Your task to perform on an android device: toggle location history Image 0: 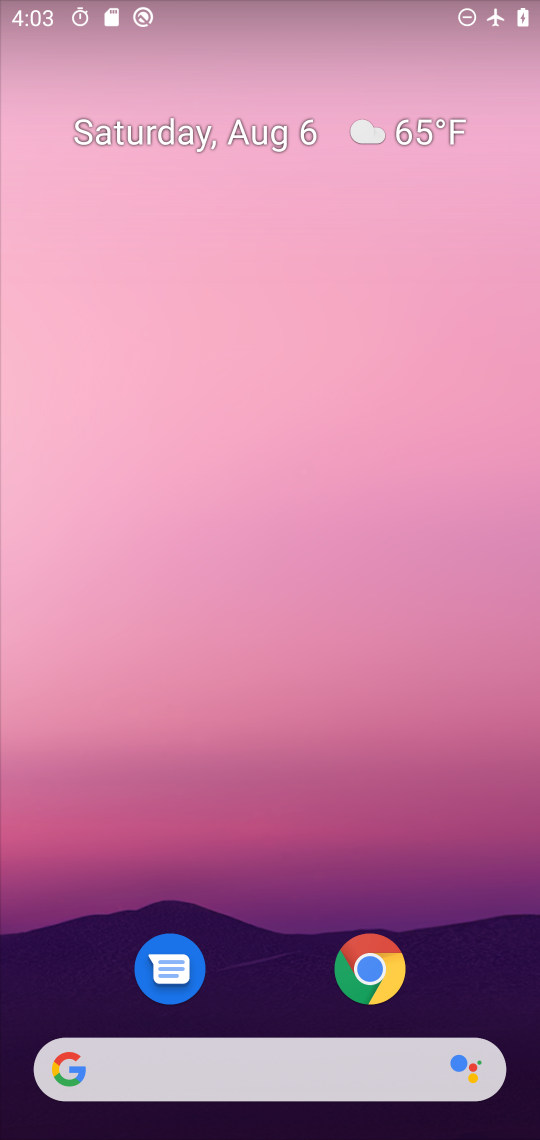
Step 0: press home button
Your task to perform on an android device: toggle location history Image 1: 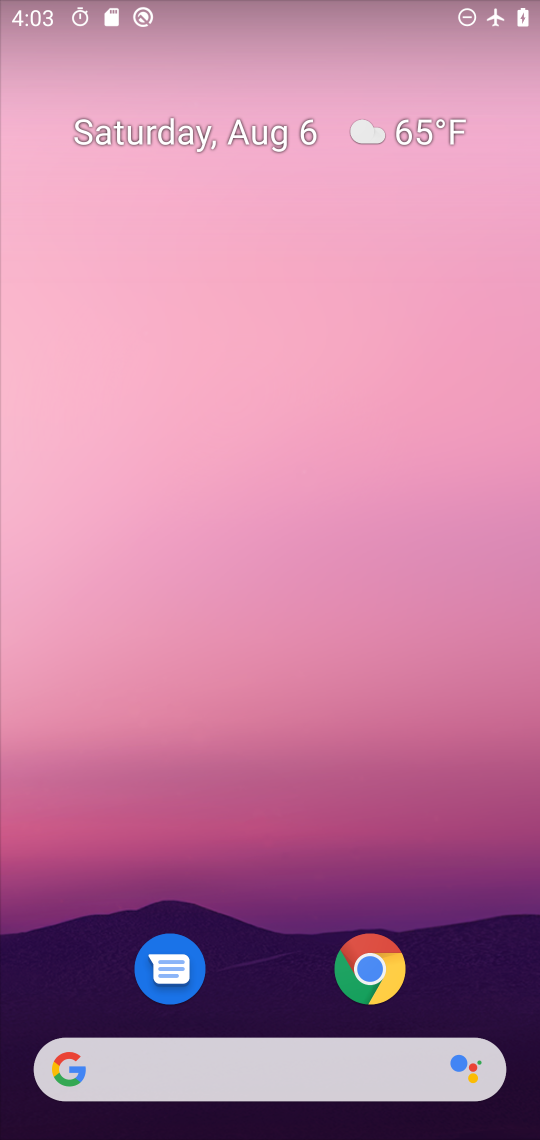
Step 1: drag from (272, 965) to (381, 220)
Your task to perform on an android device: toggle location history Image 2: 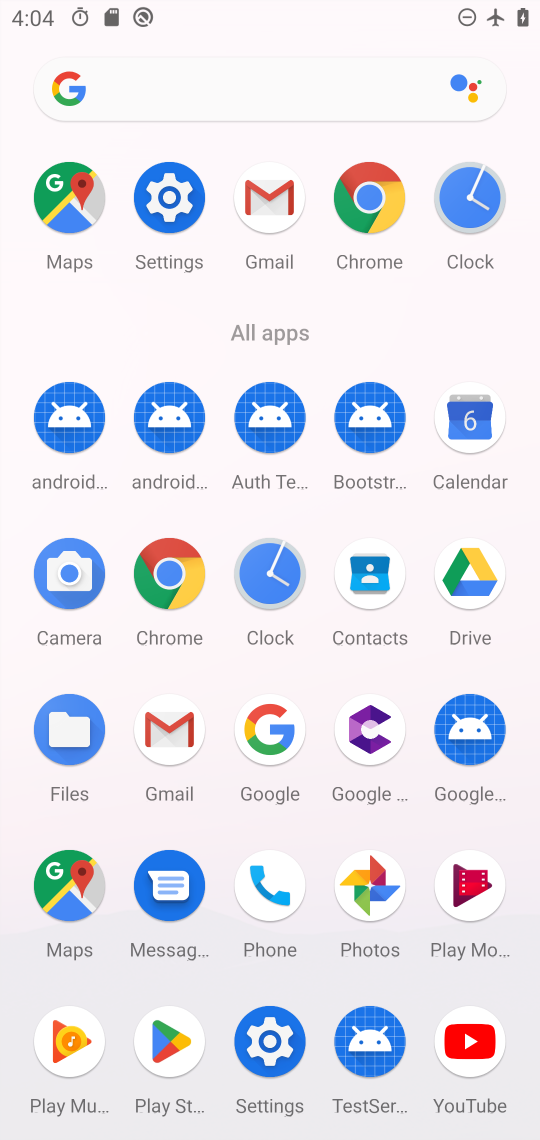
Step 2: click (180, 207)
Your task to perform on an android device: toggle location history Image 3: 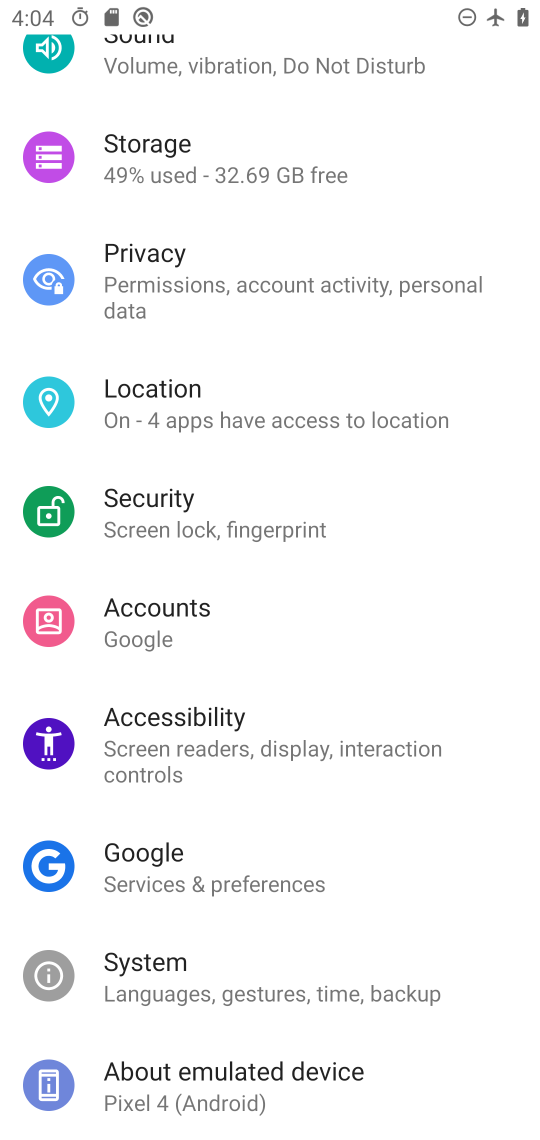
Step 3: drag from (287, 798) to (315, 398)
Your task to perform on an android device: toggle location history Image 4: 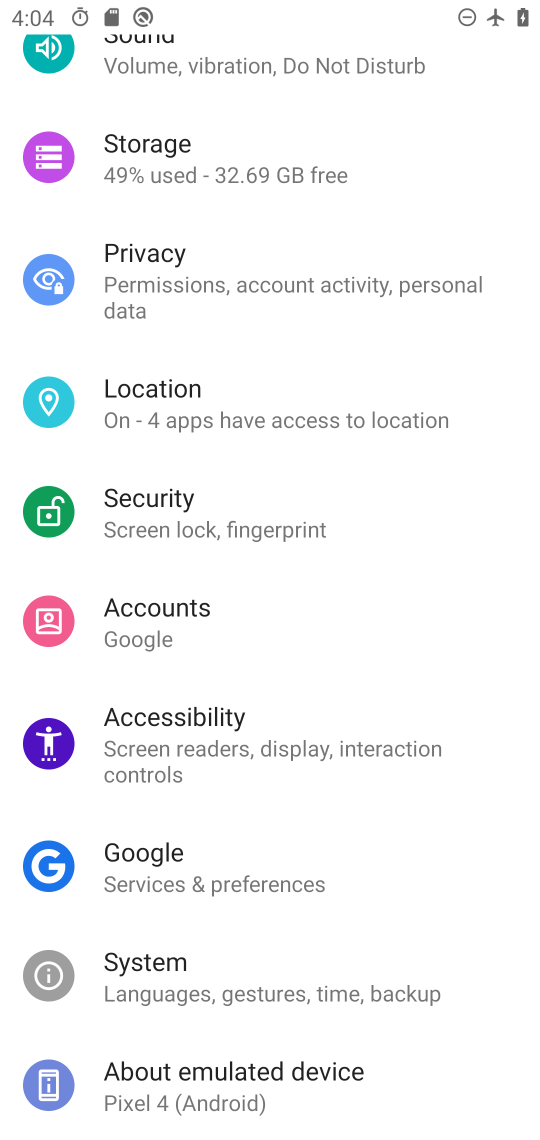
Step 4: click (305, 393)
Your task to perform on an android device: toggle location history Image 5: 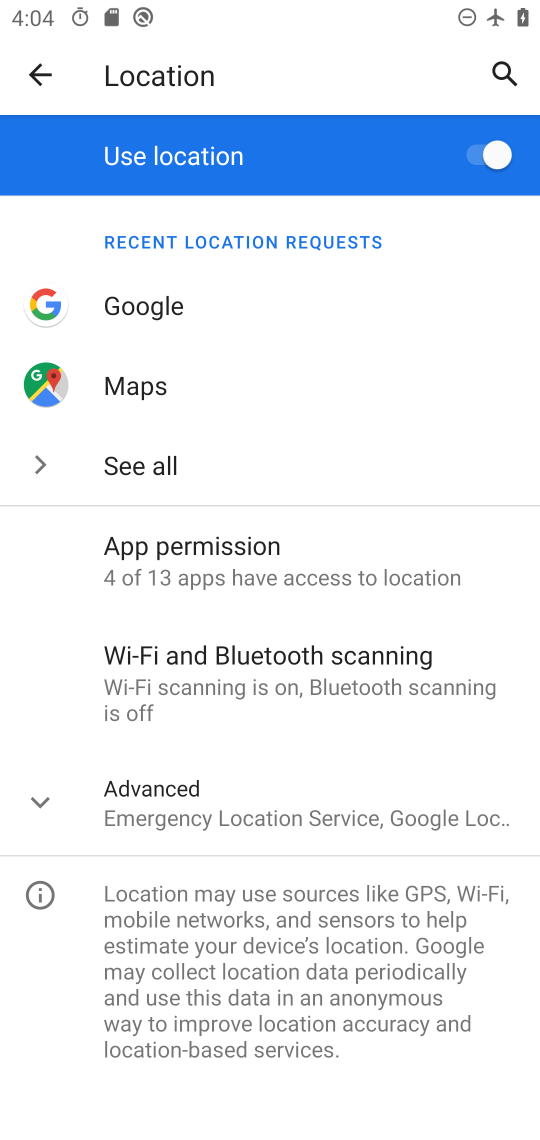
Step 5: click (51, 807)
Your task to perform on an android device: toggle location history Image 6: 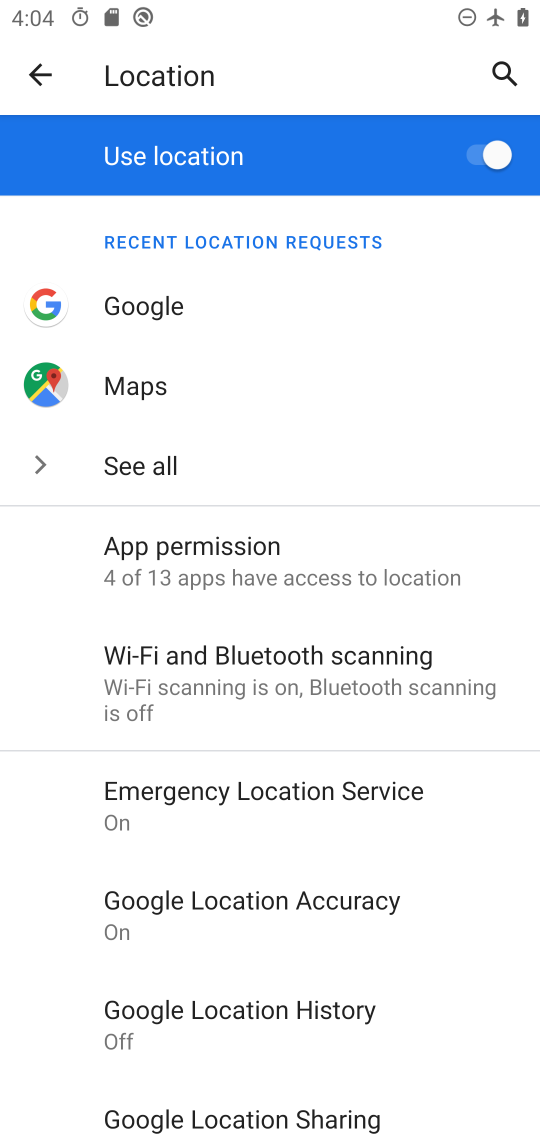
Step 6: drag from (26, 1004) to (199, 312)
Your task to perform on an android device: toggle location history Image 7: 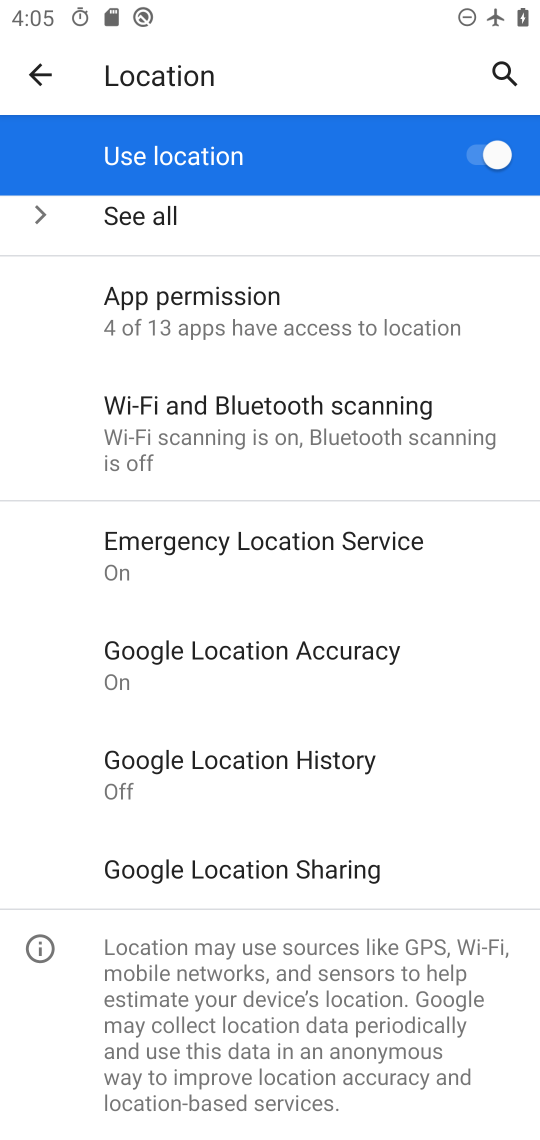
Step 7: click (296, 770)
Your task to perform on an android device: toggle location history Image 8: 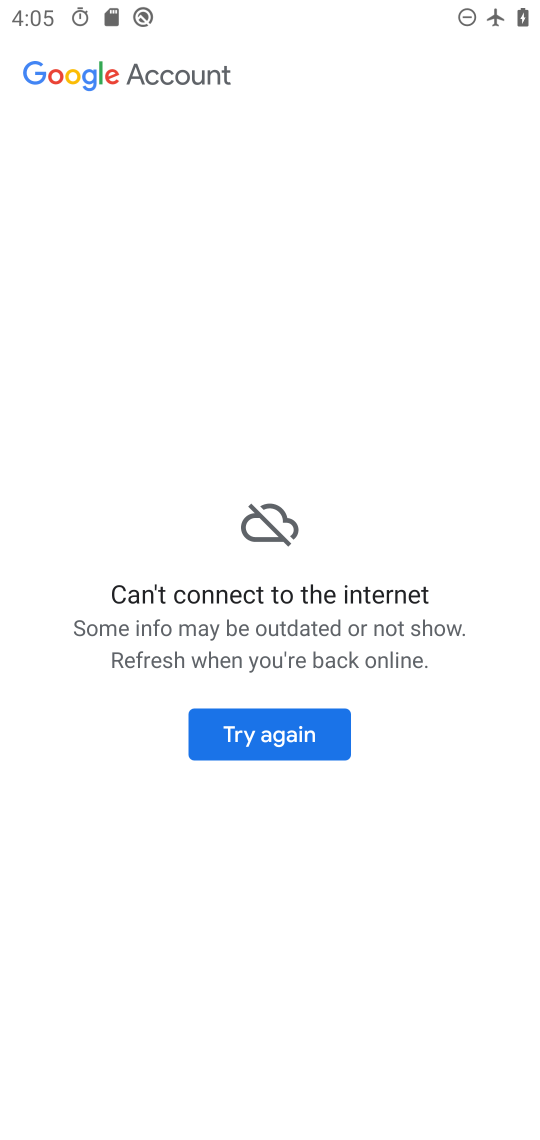
Step 8: drag from (325, 5) to (283, 470)
Your task to perform on an android device: toggle location history Image 9: 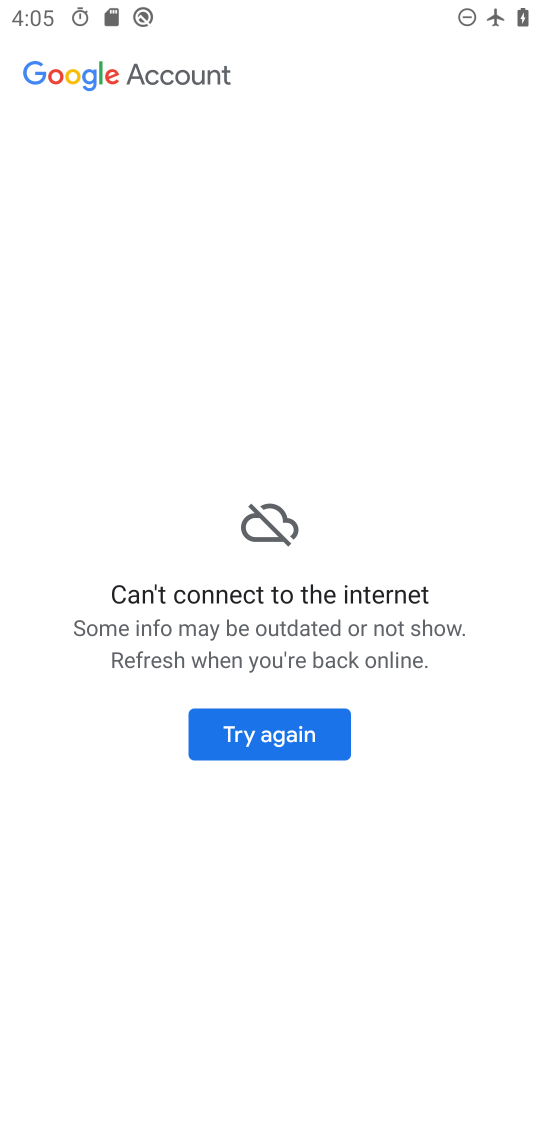
Step 9: drag from (333, 8) to (383, 734)
Your task to perform on an android device: toggle location history Image 10: 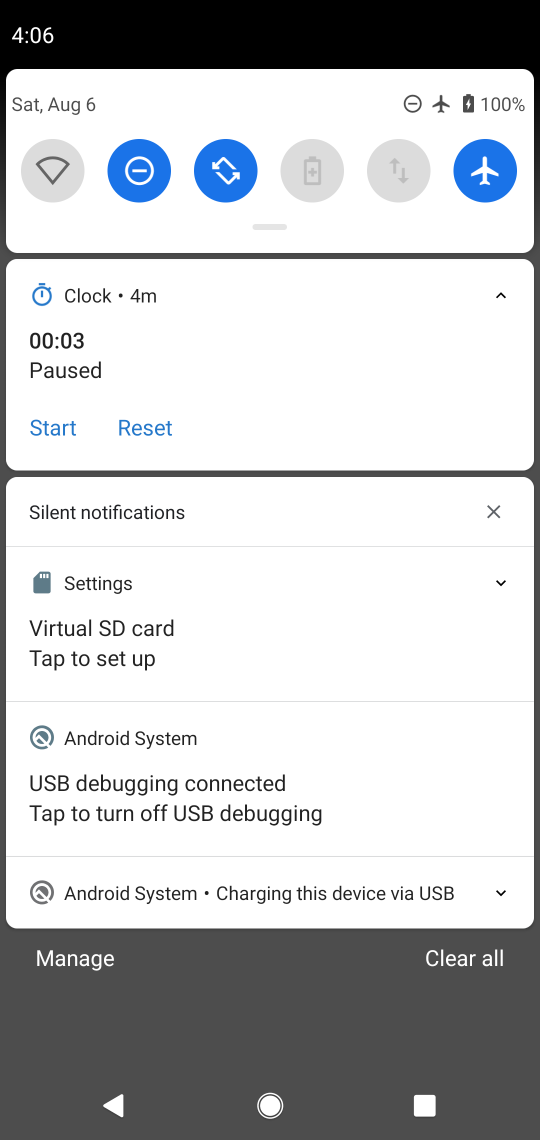
Step 10: drag from (334, 1005) to (420, 670)
Your task to perform on an android device: toggle location history Image 11: 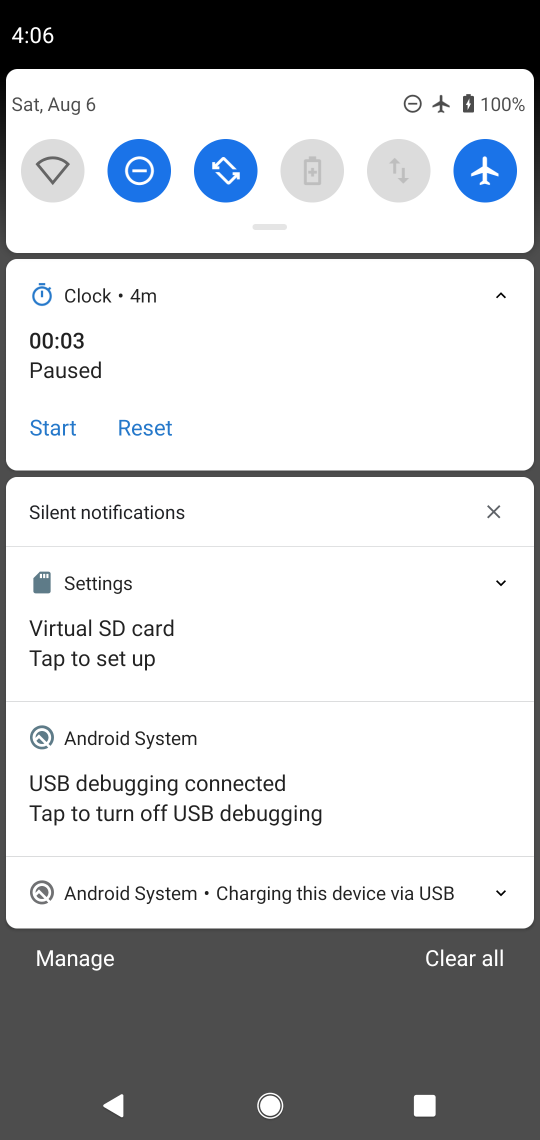
Step 11: click (375, 1001)
Your task to perform on an android device: toggle location history Image 12: 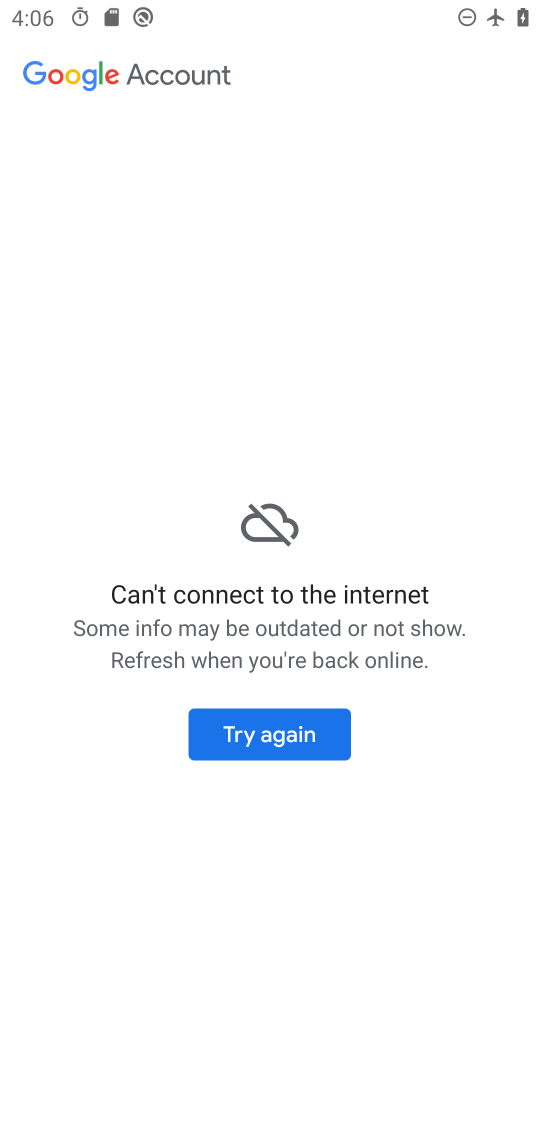
Step 12: drag from (267, 8) to (266, 501)
Your task to perform on an android device: toggle location history Image 13: 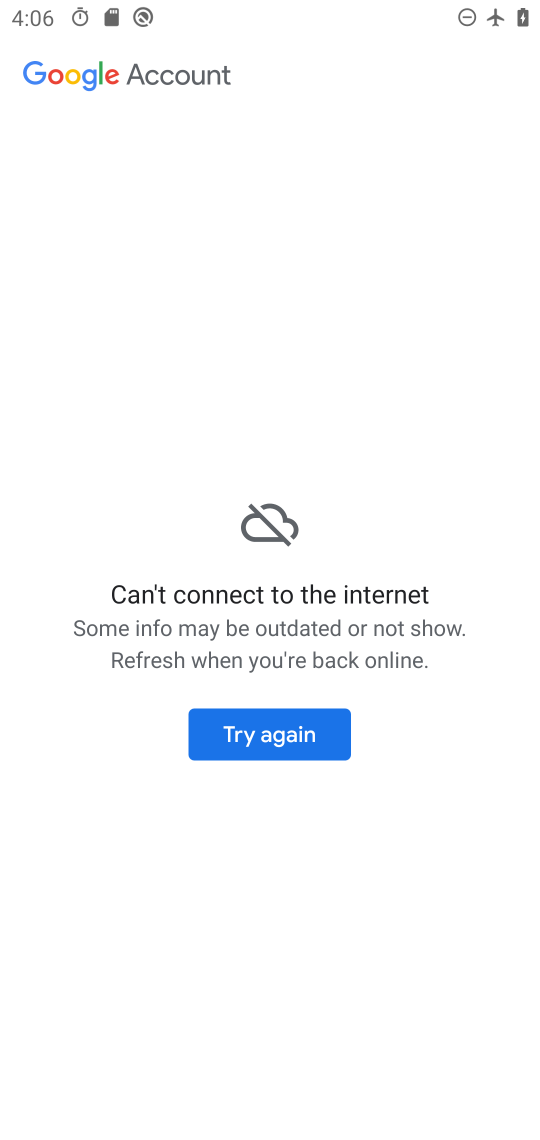
Step 13: drag from (292, 1) to (218, 827)
Your task to perform on an android device: toggle location history Image 14: 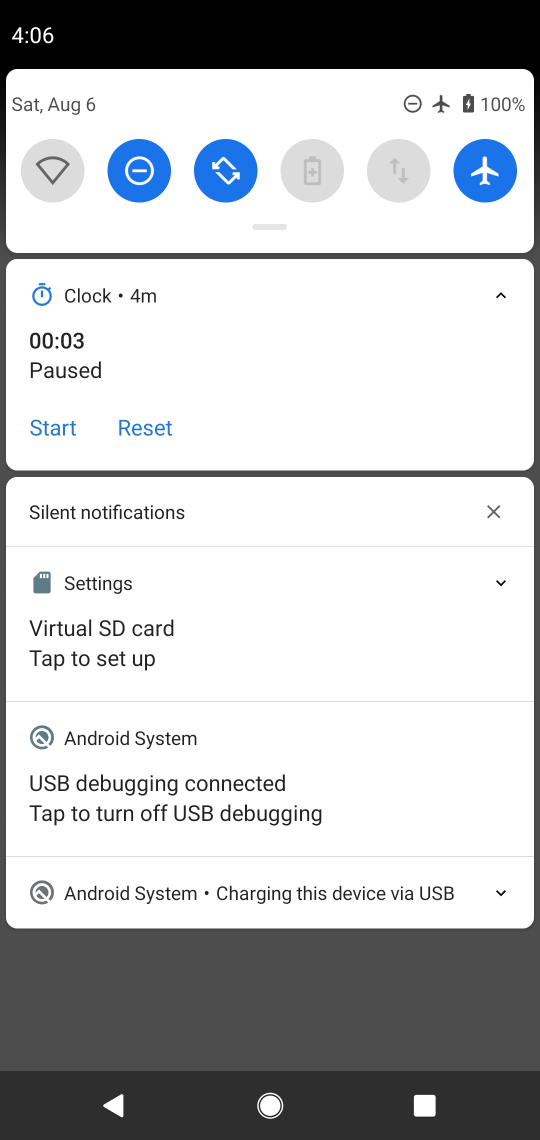
Step 14: click (48, 133)
Your task to perform on an android device: toggle location history Image 15: 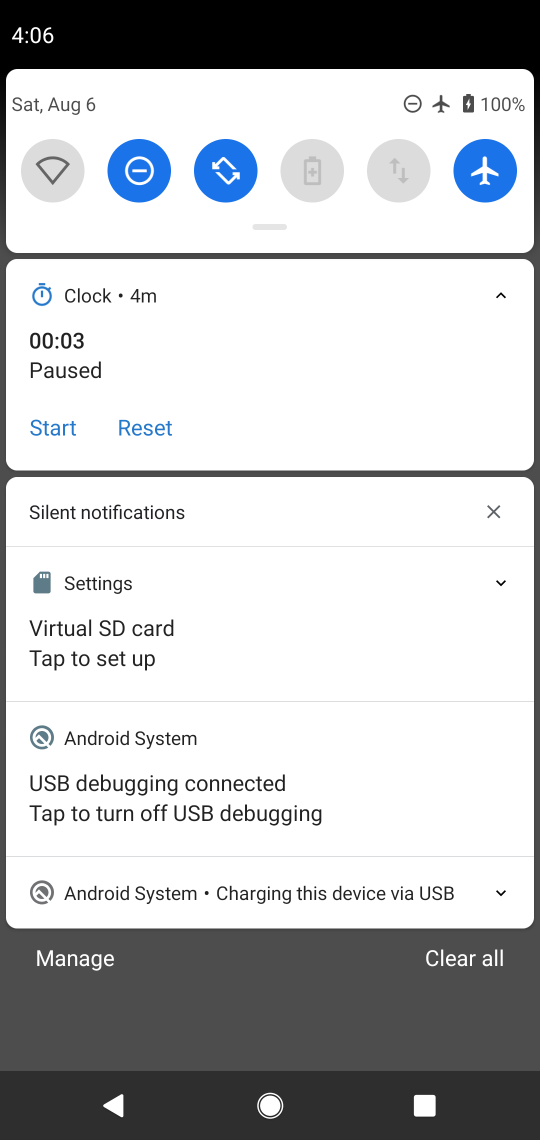
Step 15: click (47, 161)
Your task to perform on an android device: toggle location history Image 16: 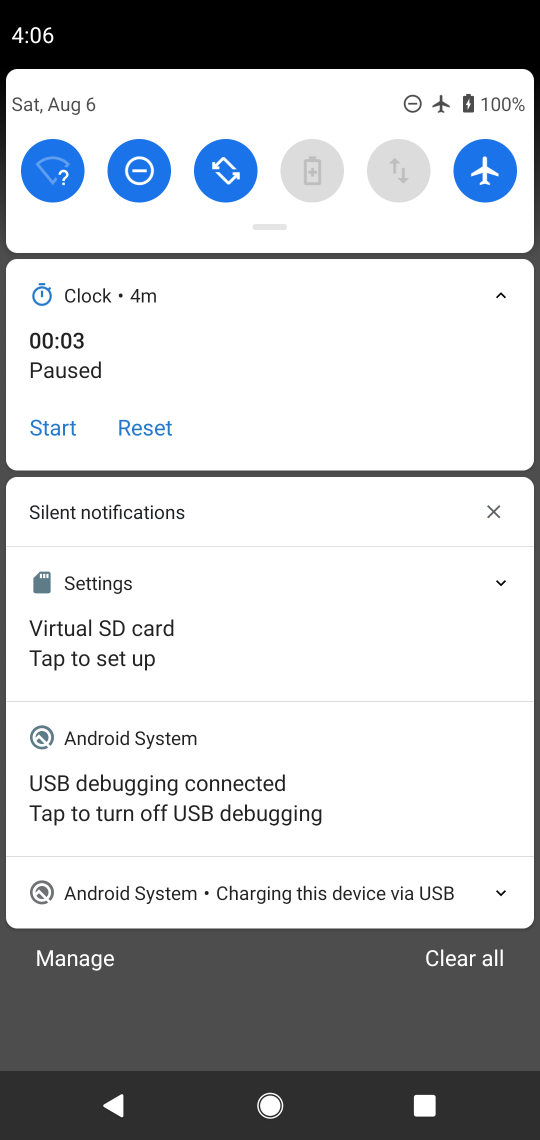
Step 16: click (286, 1023)
Your task to perform on an android device: toggle location history Image 17: 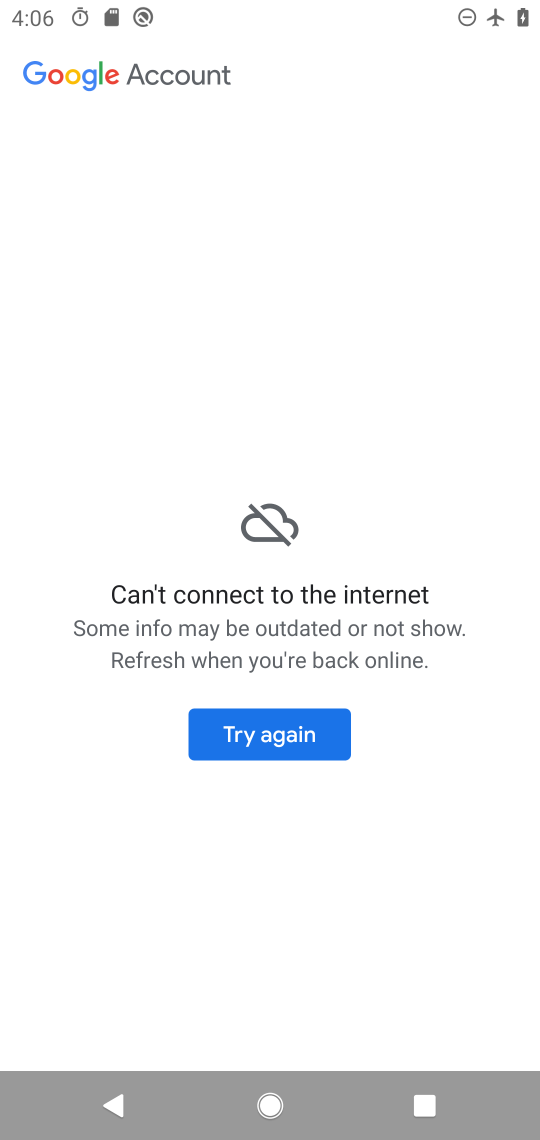
Step 17: click (280, 739)
Your task to perform on an android device: toggle location history Image 18: 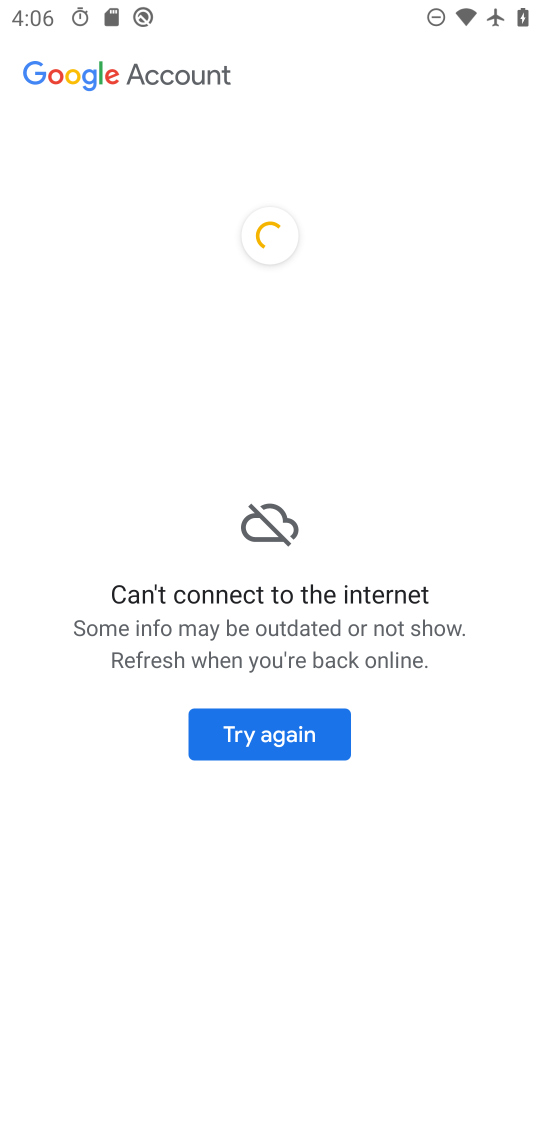
Step 18: click (240, 734)
Your task to perform on an android device: toggle location history Image 19: 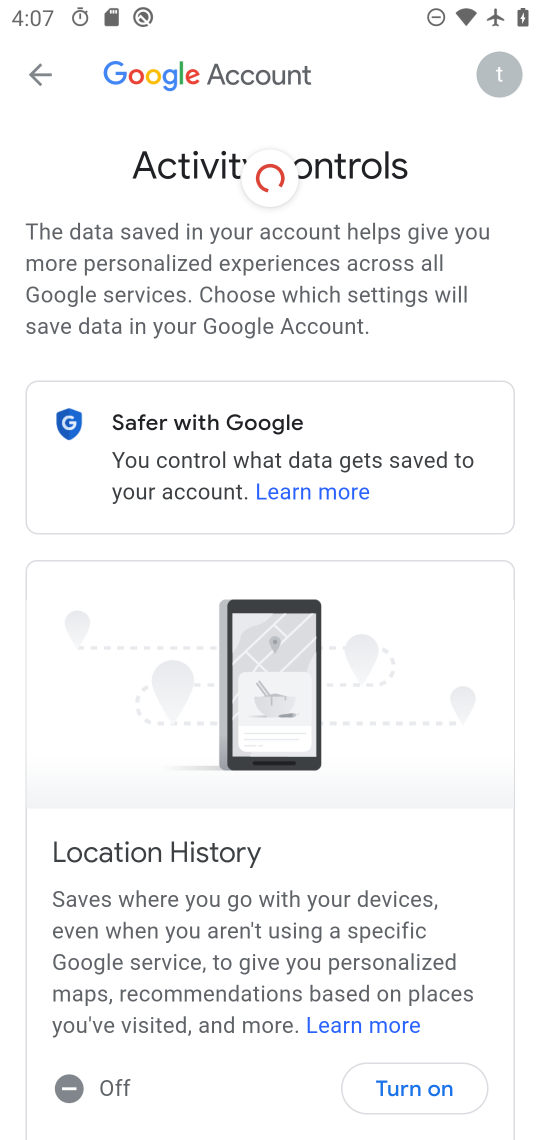
Step 19: drag from (467, 901) to (390, 410)
Your task to perform on an android device: toggle location history Image 20: 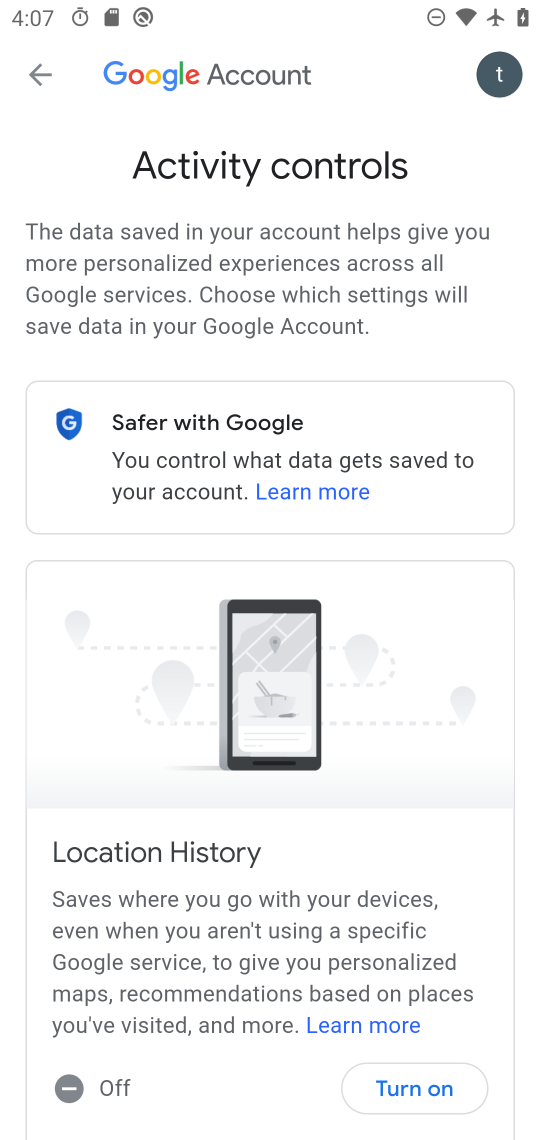
Step 20: click (408, 1101)
Your task to perform on an android device: toggle location history Image 21: 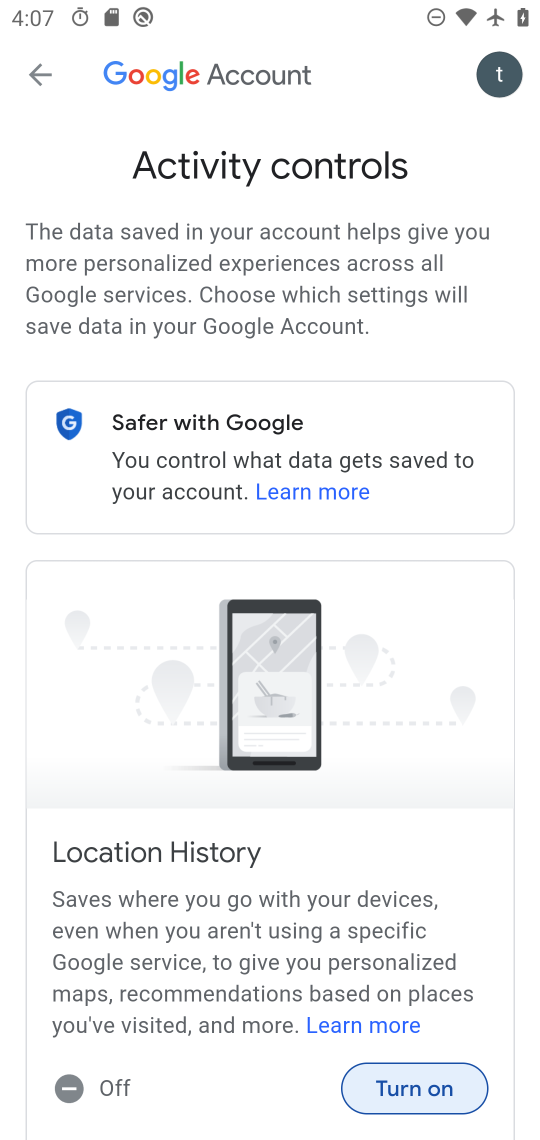
Step 21: click (425, 1075)
Your task to perform on an android device: toggle location history Image 22: 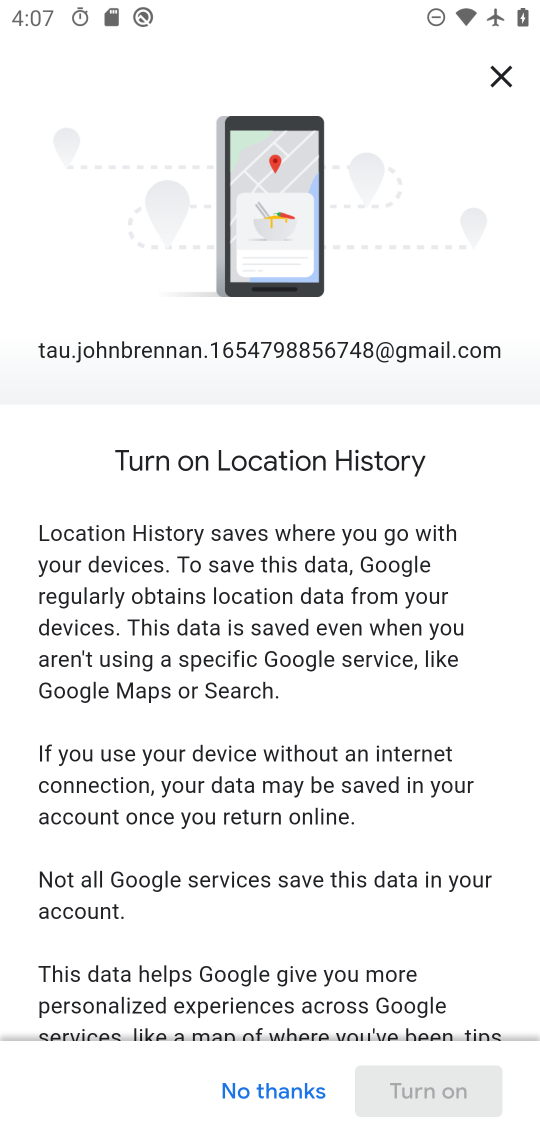
Step 22: drag from (439, 980) to (462, 356)
Your task to perform on an android device: toggle location history Image 23: 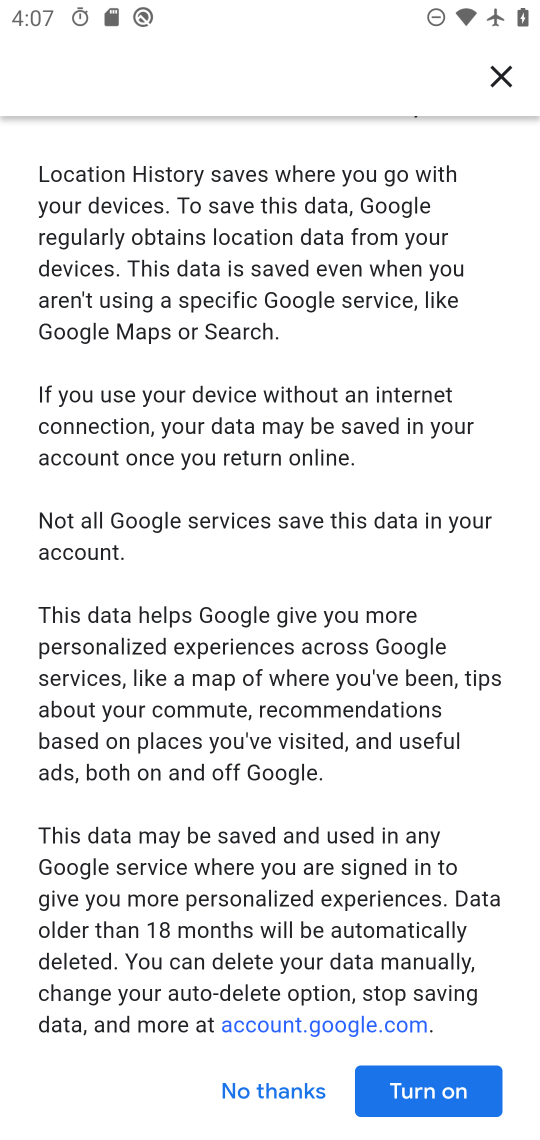
Step 23: drag from (432, 593) to (413, 300)
Your task to perform on an android device: toggle location history Image 24: 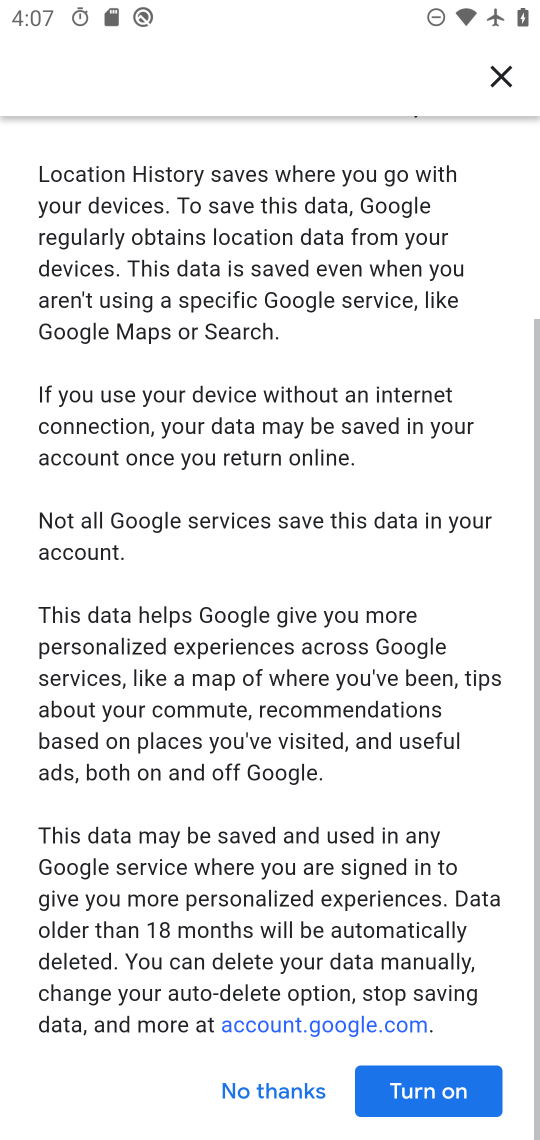
Step 24: click (466, 1099)
Your task to perform on an android device: toggle location history Image 25: 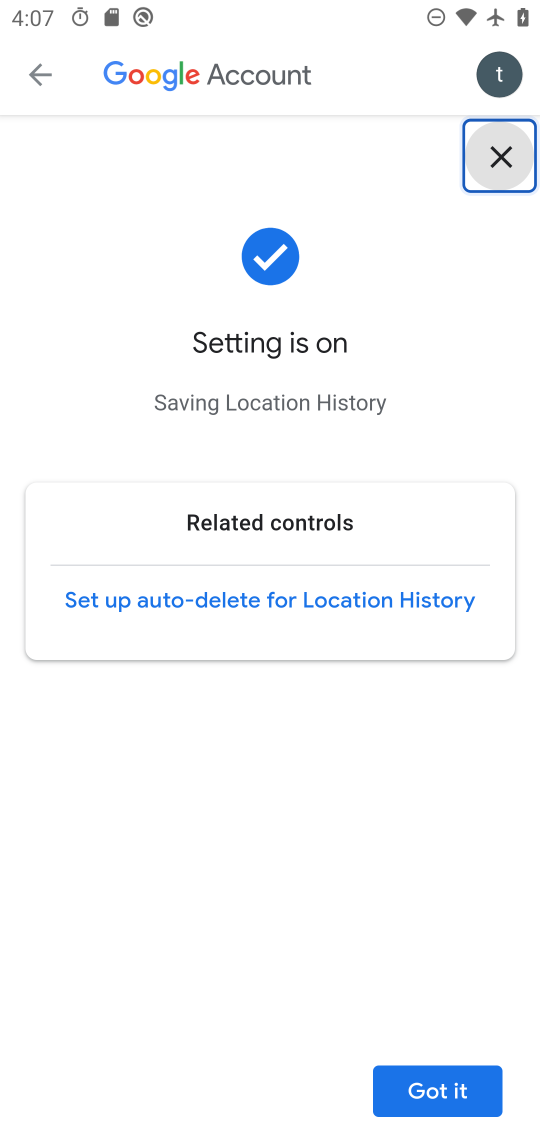
Step 25: click (423, 1092)
Your task to perform on an android device: toggle location history Image 26: 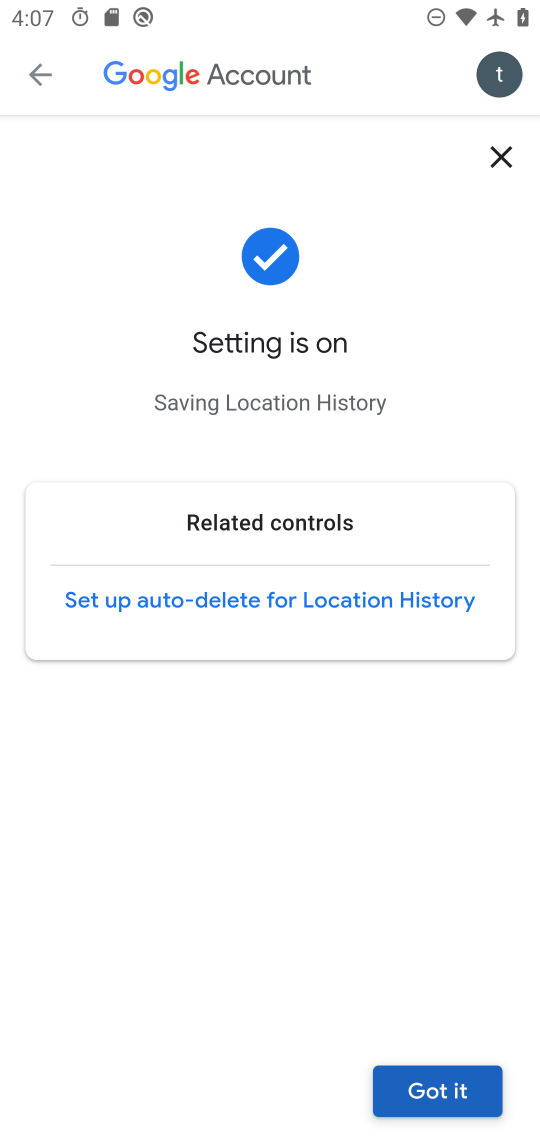
Step 26: task complete